Your task to perform on an android device: change the clock display to analog Image 0: 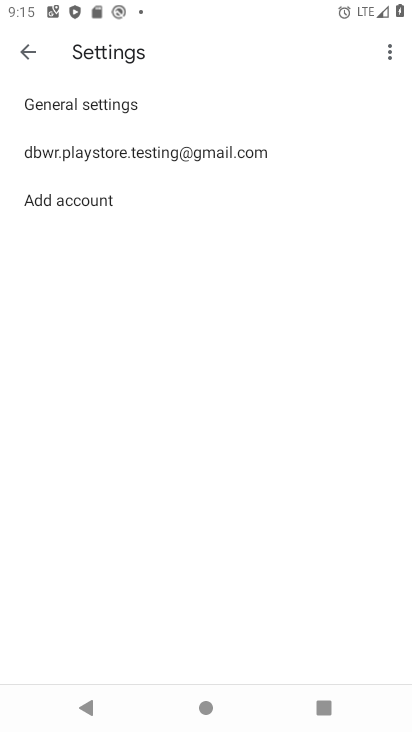
Step 0: press home button
Your task to perform on an android device: change the clock display to analog Image 1: 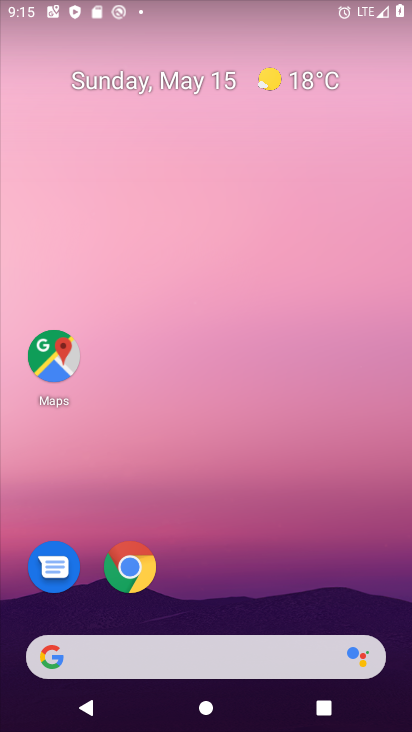
Step 1: drag from (254, 715) to (302, 23)
Your task to perform on an android device: change the clock display to analog Image 2: 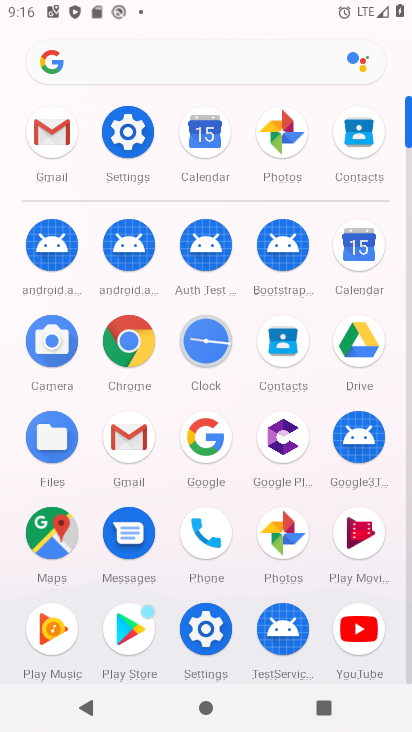
Step 2: click (220, 336)
Your task to perform on an android device: change the clock display to analog Image 3: 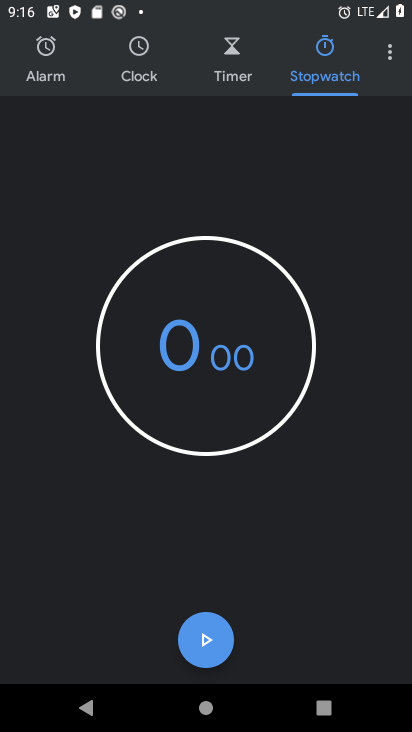
Step 3: click (390, 48)
Your task to perform on an android device: change the clock display to analog Image 4: 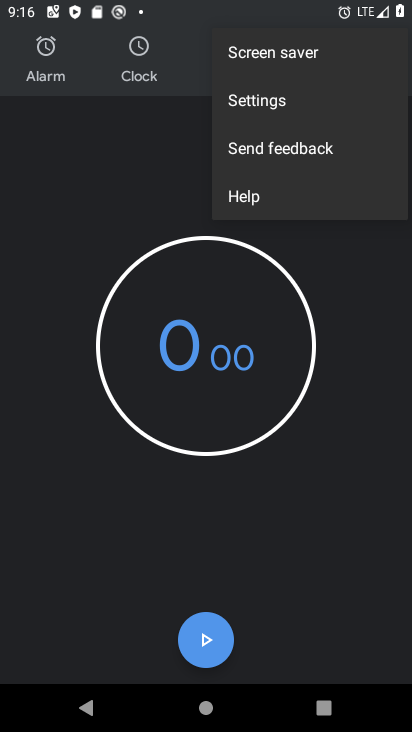
Step 4: click (284, 97)
Your task to perform on an android device: change the clock display to analog Image 5: 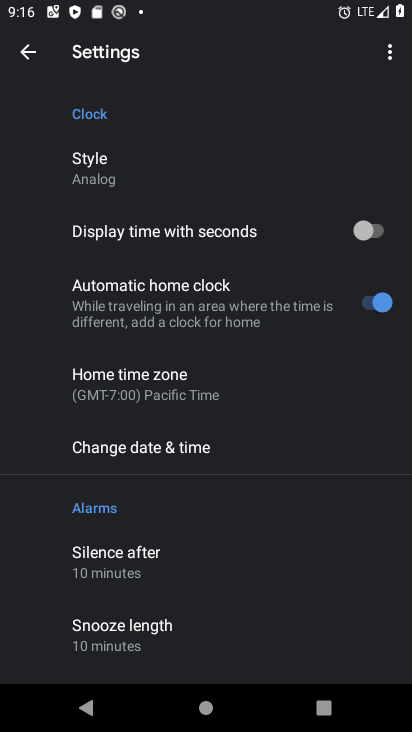
Step 5: task complete